Your task to perform on an android device: turn off javascript in the chrome app Image 0: 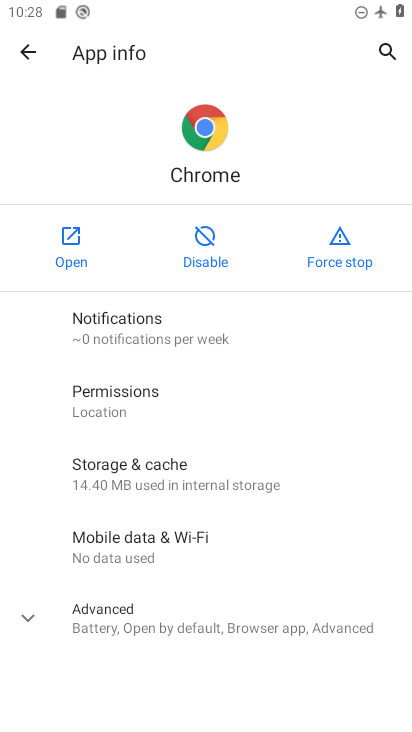
Step 0: click (63, 257)
Your task to perform on an android device: turn off javascript in the chrome app Image 1: 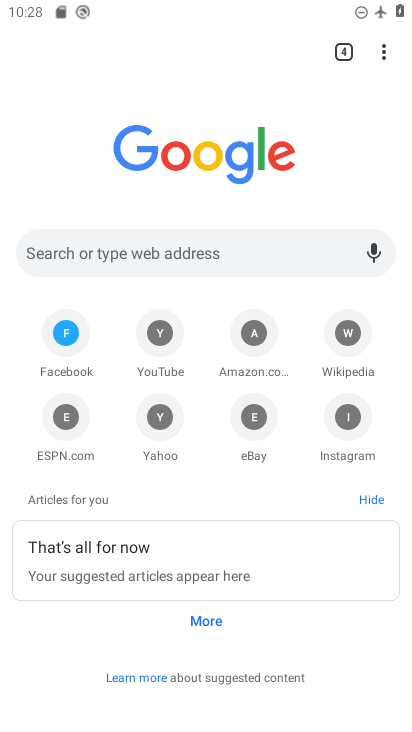
Step 1: click (387, 49)
Your task to perform on an android device: turn off javascript in the chrome app Image 2: 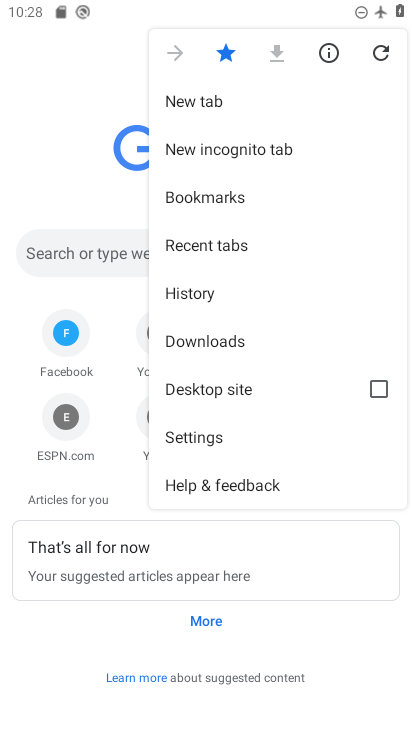
Step 2: click (214, 438)
Your task to perform on an android device: turn off javascript in the chrome app Image 3: 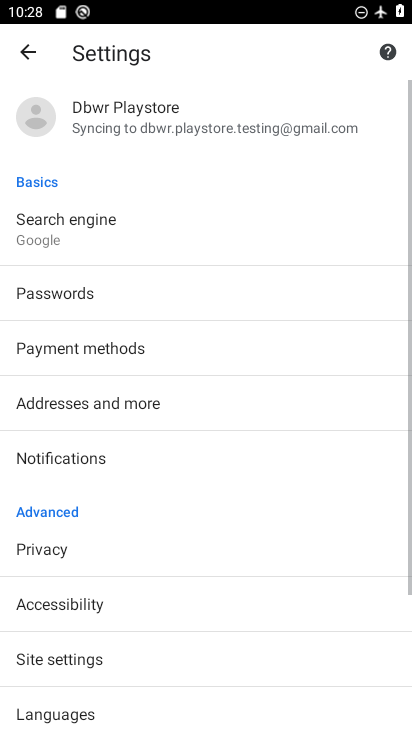
Step 3: drag from (136, 615) to (159, 177)
Your task to perform on an android device: turn off javascript in the chrome app Image 4: 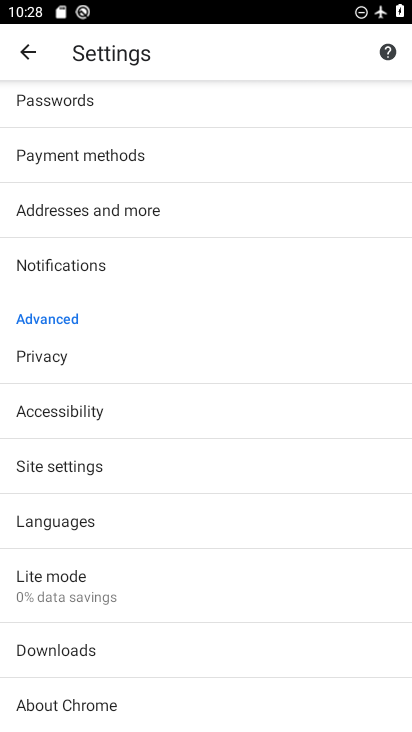
Step 4: click (100, 463)
Your task to perform on an android device: turn off javascript in the chrome app Image 5: 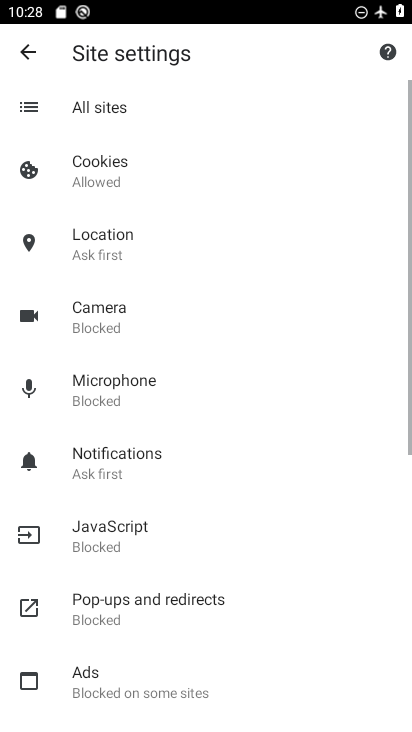
Step 5: click (157, 526)
Your task to perform on an android device: turn off javascript in the chrome app Image 6: 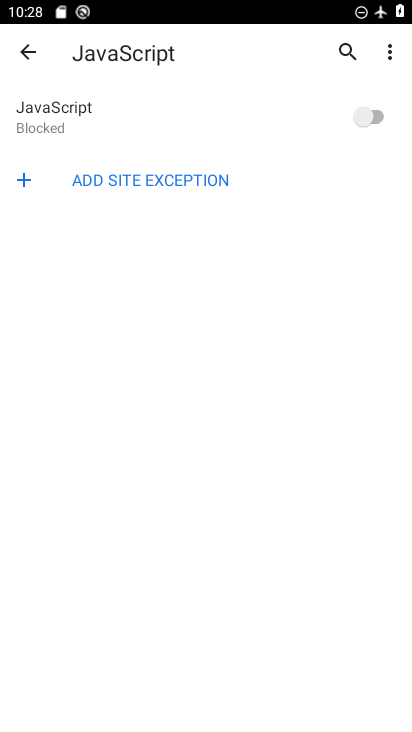
Step 6: task complete